Your task to perform on an android device: Go to Maps Image 0: 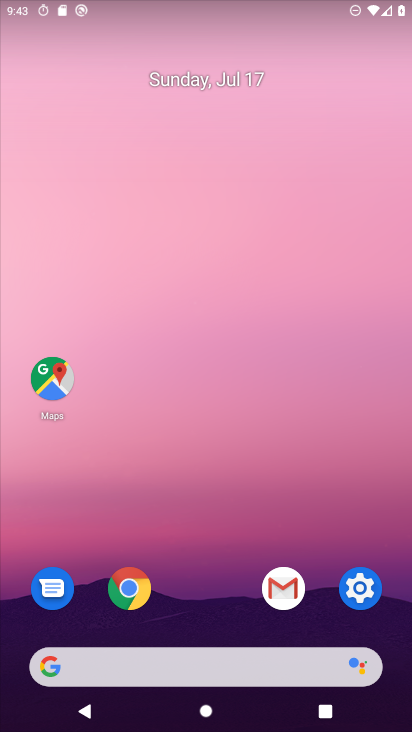
Step 0: click (58, 390)
Your task to perform on an android device: Go to Maps Image 1: 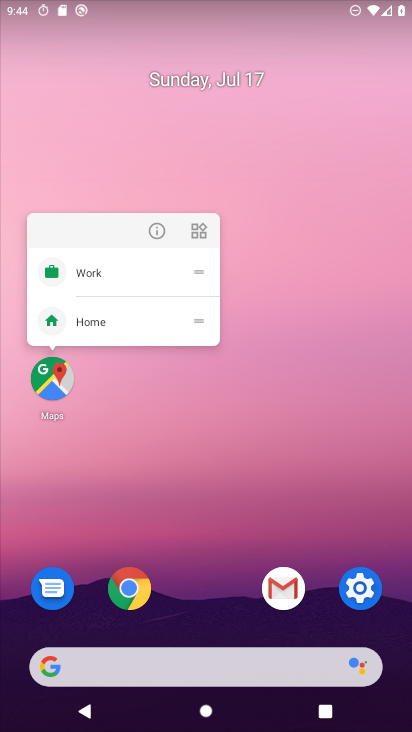
Step 1: click (60, 402)
Your task to perform on an android device: Go to Maps Image 2: 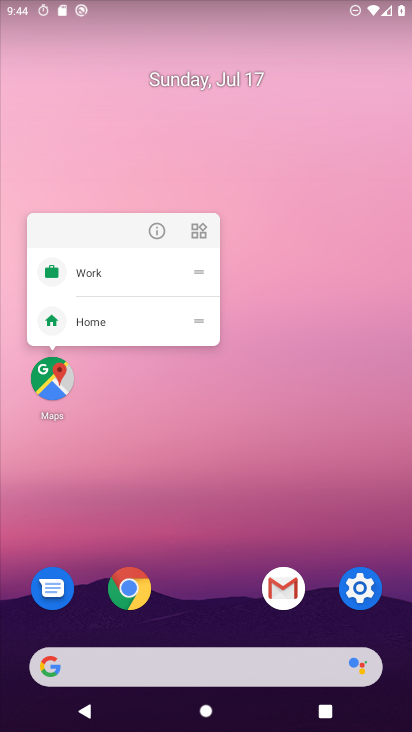
Step 2: click (60, 402)
Your task to perform on an android device: Go to Maps Image 3: 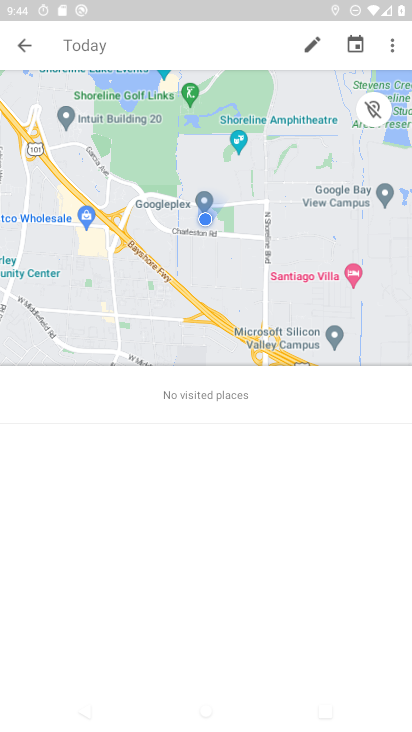
Step 3: click (24, 46)
Your task to perform on an android device: Go to Maps Image 4: 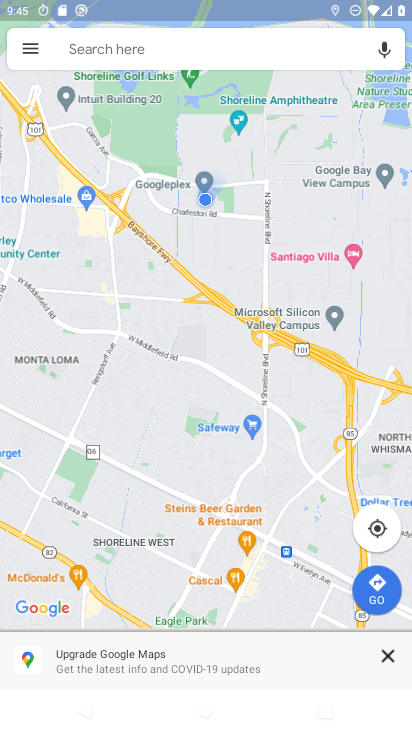
Step 4: task complete